Your task to perform on an android device: Set the phone to "Do not disturb". Image 0: 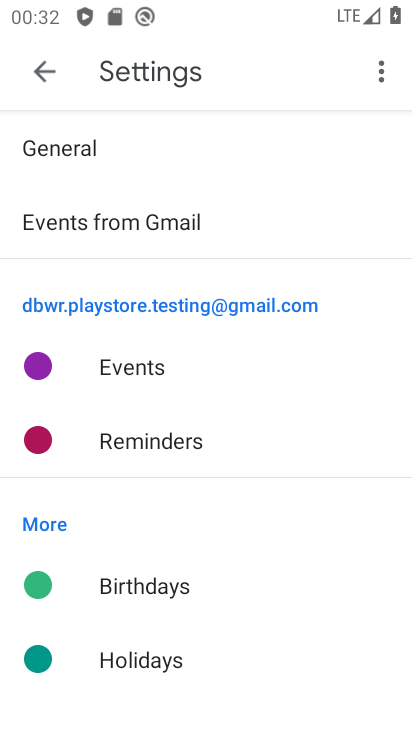
Step 0: press home button
Your task to perform on an android device: Set the phone to "Do not disturb". Image 1: 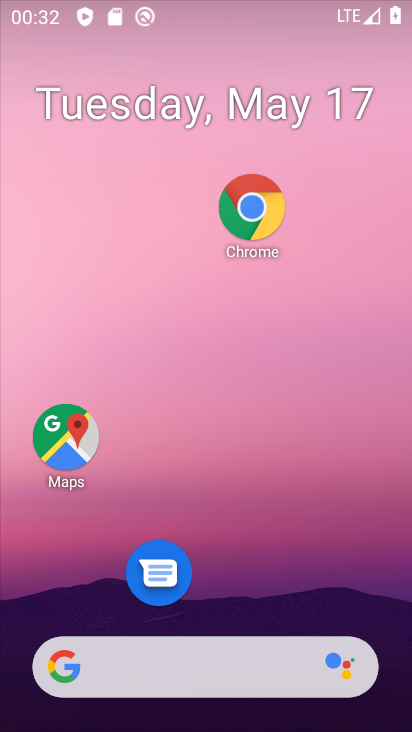
Step 1: drag from (214, 668) to (327, 35)
Your task to perform on an android device: Set the phone to "Do not disturb". Image 2: 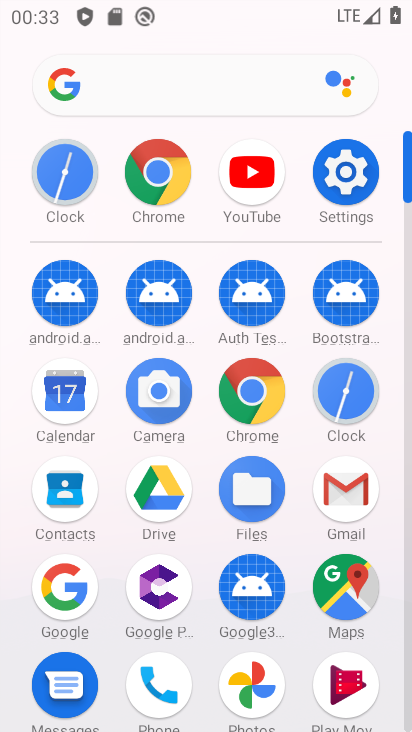
Step 2: click (352, 180)
Your task to perform on an android device: Set the phone to "Do not disturb". Image 3: 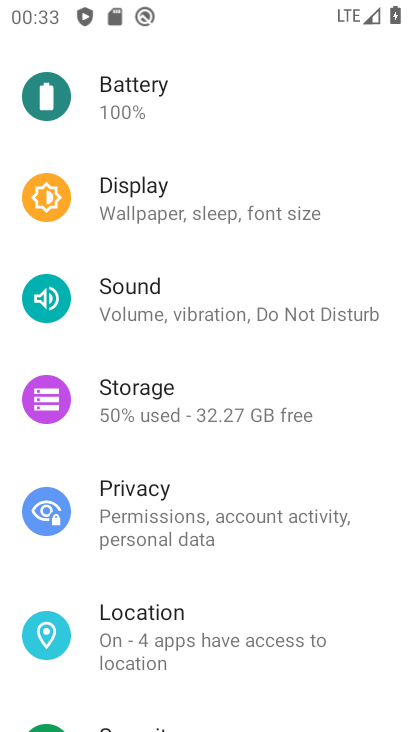
Step 3: click (179, 293)
Your task to perform on an android device: Set the phone to "Do not disturb". Image 4: 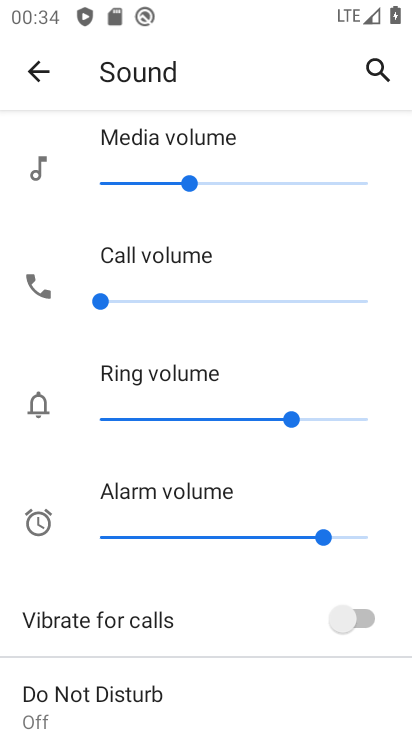
Step 4: drag from (285, 695) to (294, 244)
Your task to perform on an android device: Set the phone to "Do not disturb". Image 5: 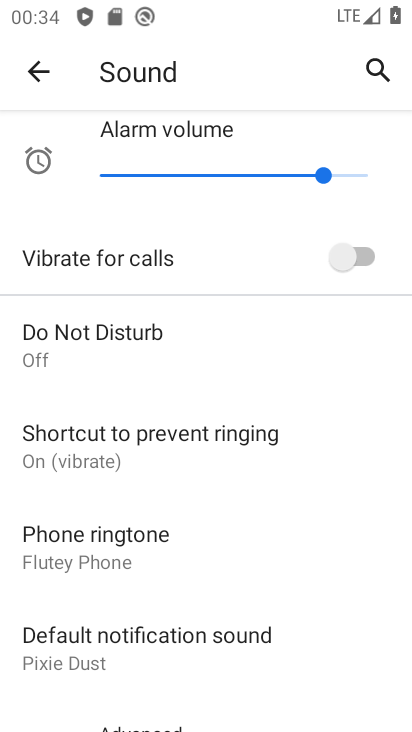
Step 5: click (137, 365)
Your task to perform on an android device: Set the phone to "Do not disturb". Image 6: 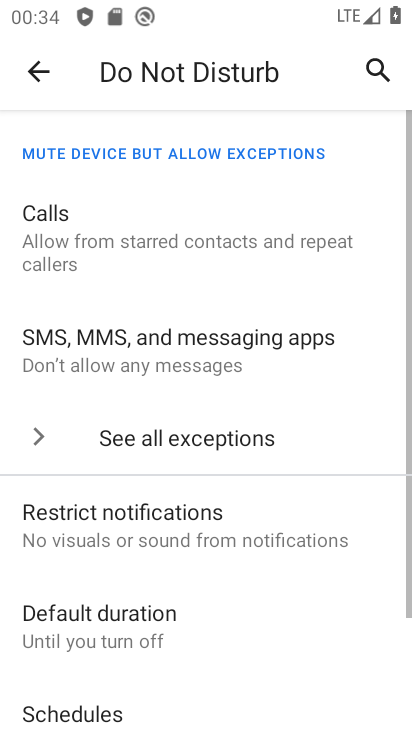
Step 6: drag from (212, 684) to (295, 63)
Your task to perform on an android device: Set the phone to "Do not disturb". Image 7: 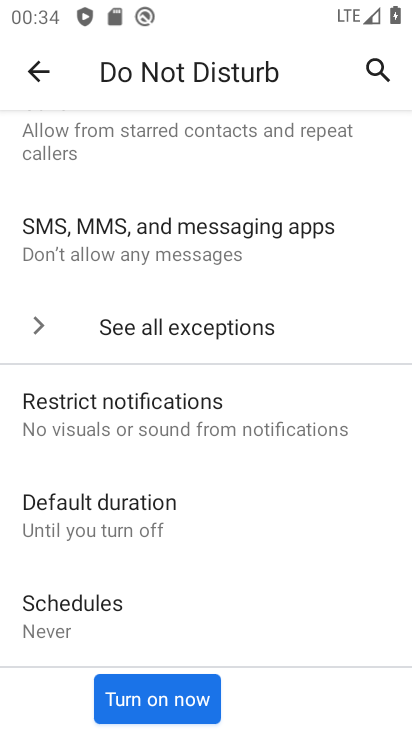
Step 7: click (175, 705)
Your task to perform on an android device: Set the phone to "Do not disturb". Image 8: 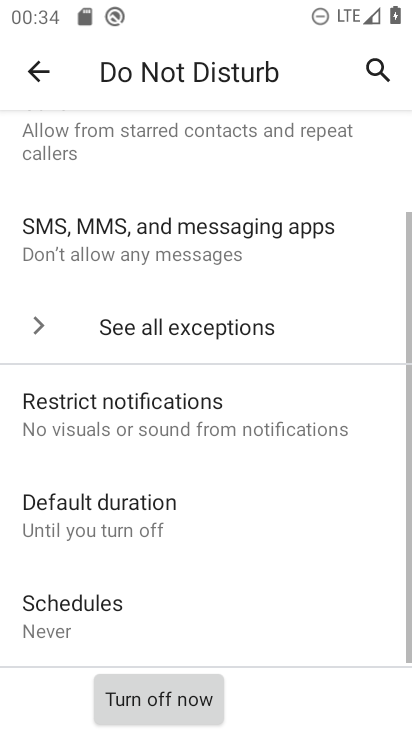
Step 8: task complete